Your task to perform on an android device: turn off javascript in the chrome app Image 0: 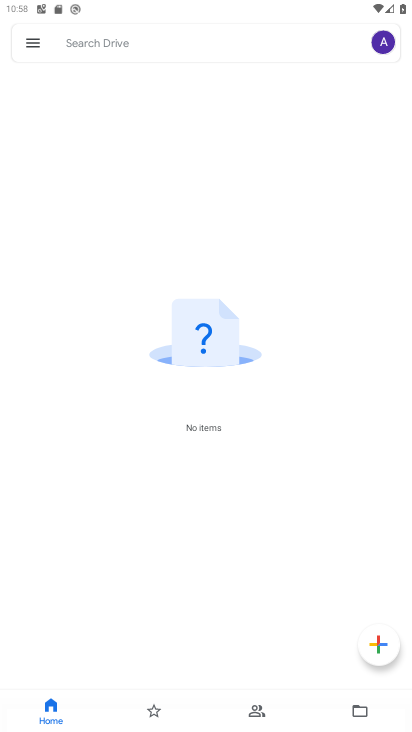
Step 0: press home button
Your task to perform on an android device: turn off javascript in the chrome app Image 1: 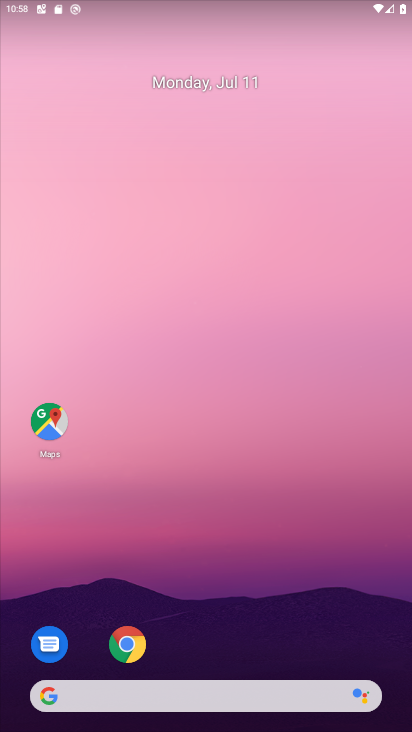
Step 1: click (128, 639)
Your task to perform on an android device: turn off javascript in the chrome app Image 2: 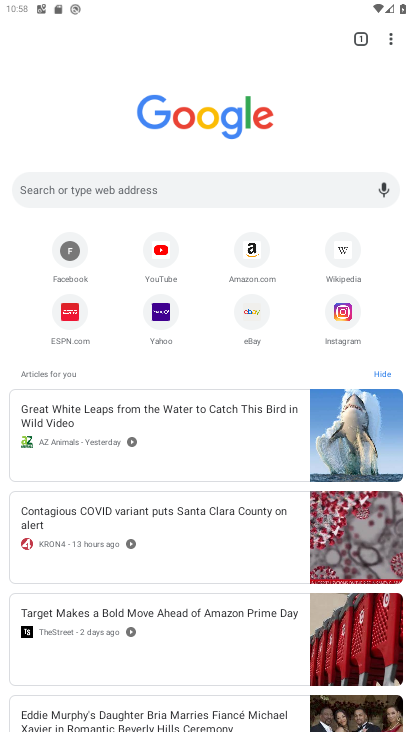
Step 2: click (390, 37)
Your task to perform on an android device: turn off javascript in the chrome app Image 3: 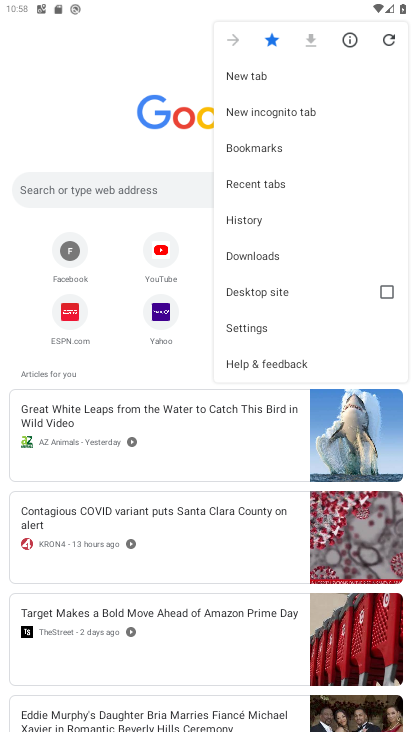
Step 3: click (263, 329)
Your task to perform on an android device: turn off javascript in the chrome app Image 4: 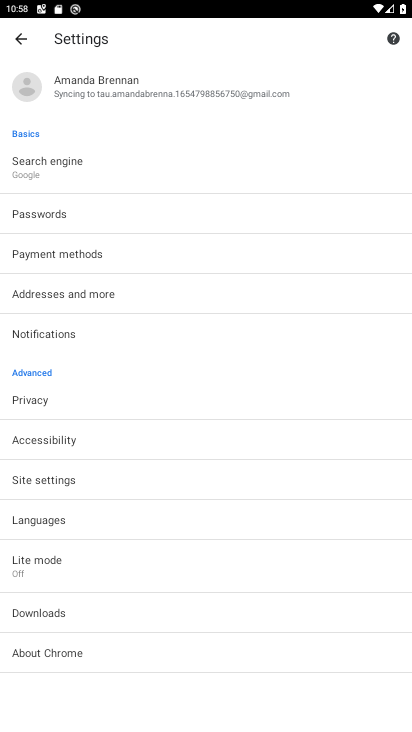
Step 4: click (99, 475)
Your task to perform on an android device: turn off javascript in the chrome app Image 5: 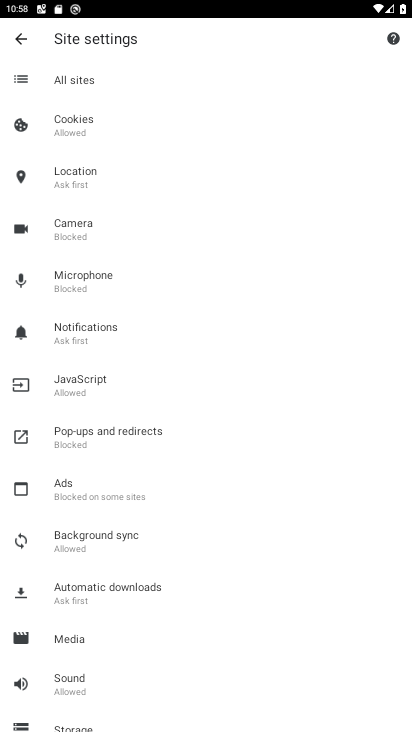
Step 5: click (103, 374)
Your task to perform on an android device: turn off javascript in the chrome app Image 6: 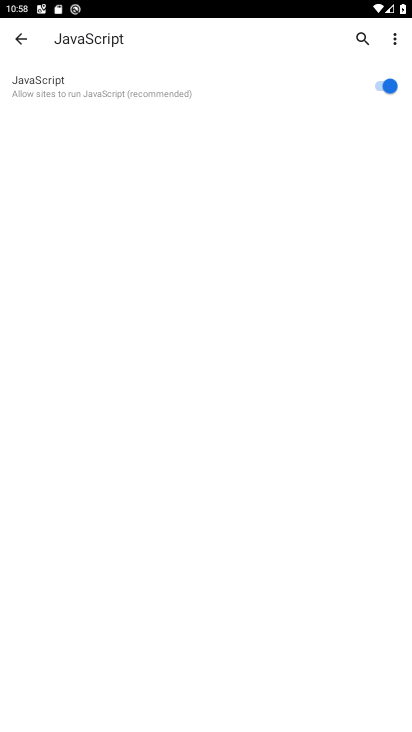
Step 6: click (382, 87)
Your task to perform on an android device: turn off javascript in the chrome app Image 7: 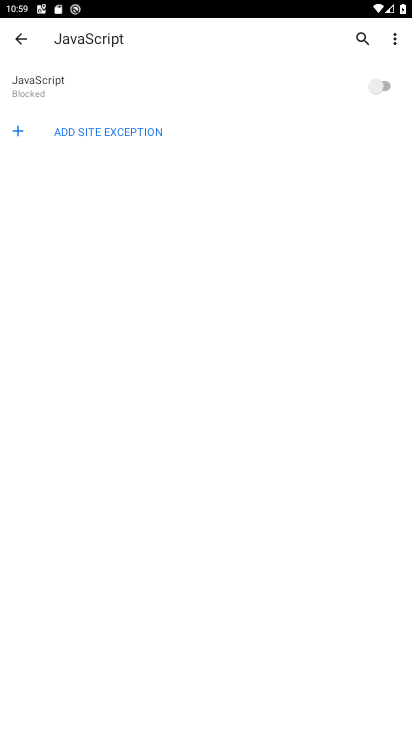
Step 7: task complete